Your task to perform on an android device: turn on airplane mode Image 0: 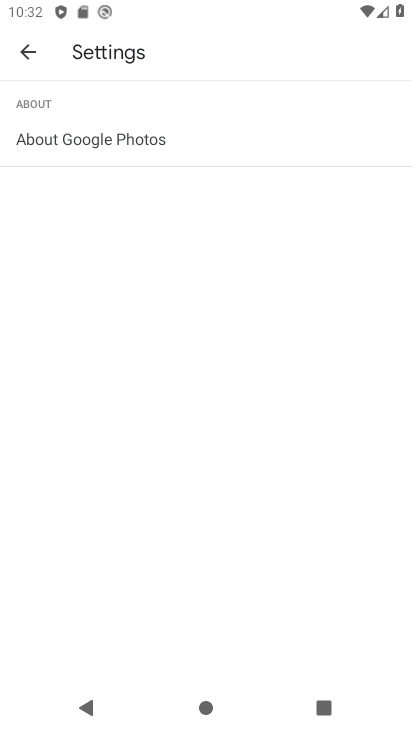
Step 0: press home button
Your task to perform on an android device: turn on airplane mode Image 1: 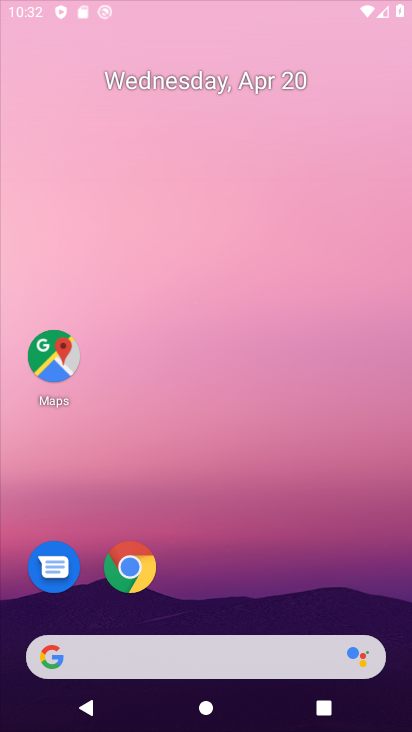
Step 1: drag from (271, 617) to (309, 321)
Your task to perform on an android device: turn on airplane mode Image 2: 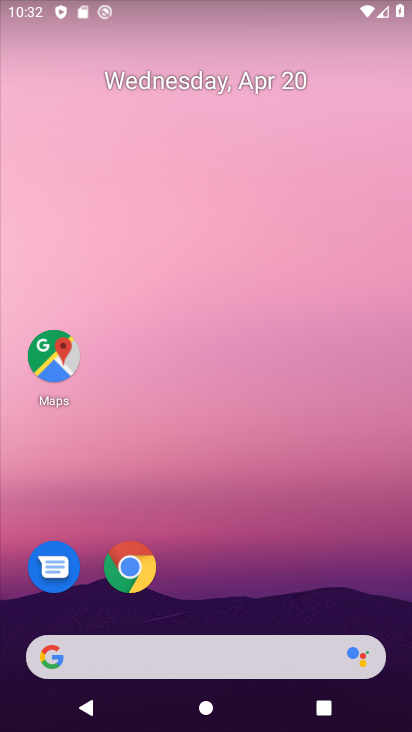
Step 2: drag from (228, 639) to (295, 213)
Your task to perform on an android device: turn on airplane mode Image 3: 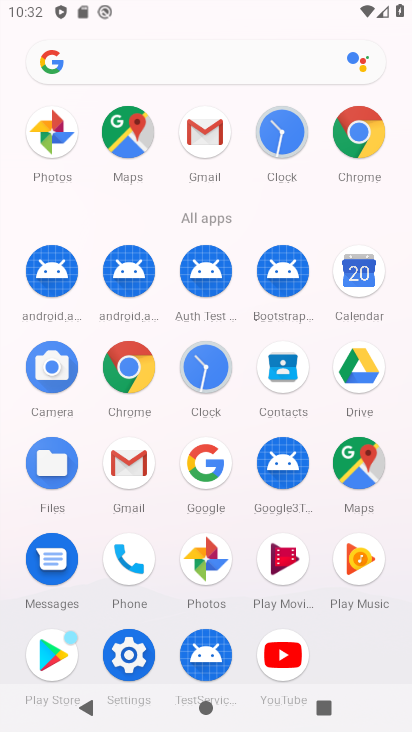
Step 3: click (119, 645)
Your task to perform on an android device: turn on airplane mode Image 4: 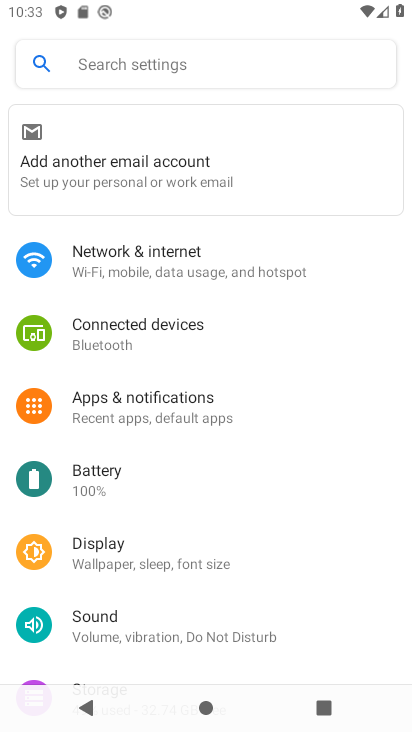
Step 4: click (156, 249)
Your task to perform on an android device: turn on airplane mode Image 5: 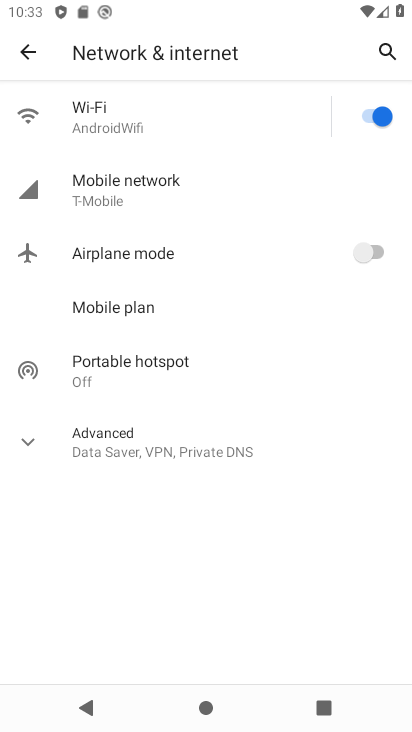
Step 5: click (364, 244)
Your task to perform on an android device: turn on airplane mode Image 6: 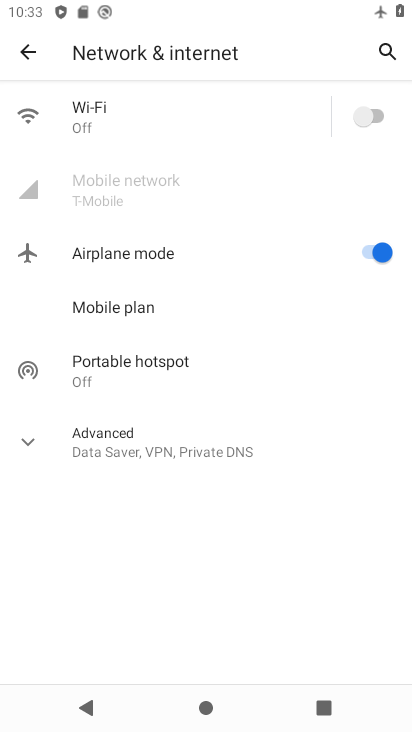
Step 6: task complete